Your task to perform on an android device: turn on the 12-hour format for clock Image 0: 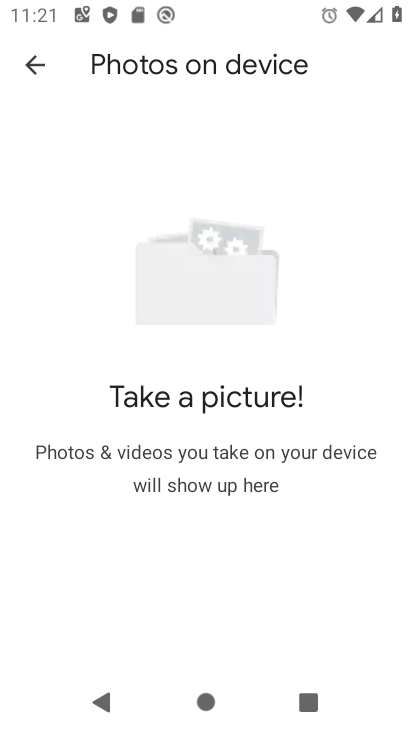
Step 0: press home button
Your task to perform on an android device: turn on the 12-hour format for clock Image 1: 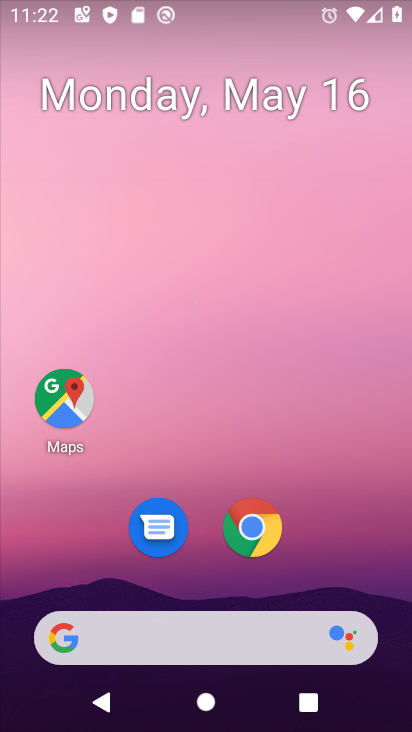
Step 1: drag from (382, 549) to (348, 14)
Your task to perform on an android device: turn on the 12-hour format for clock Image 2: 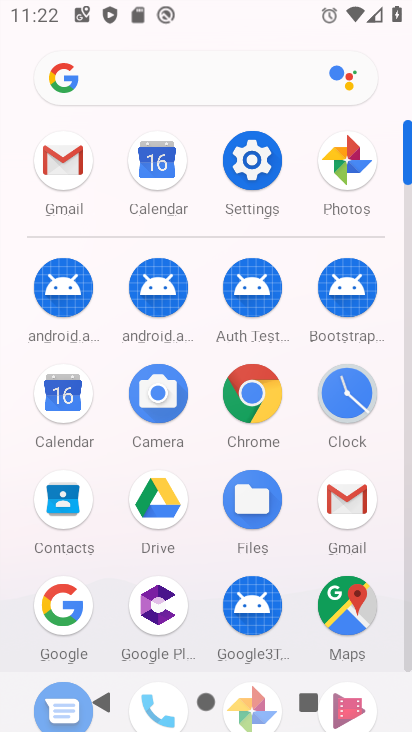
Step 2: click (351, 394)
Your task to perform on an android device: turn on the 12-hour format for clock Image 3: 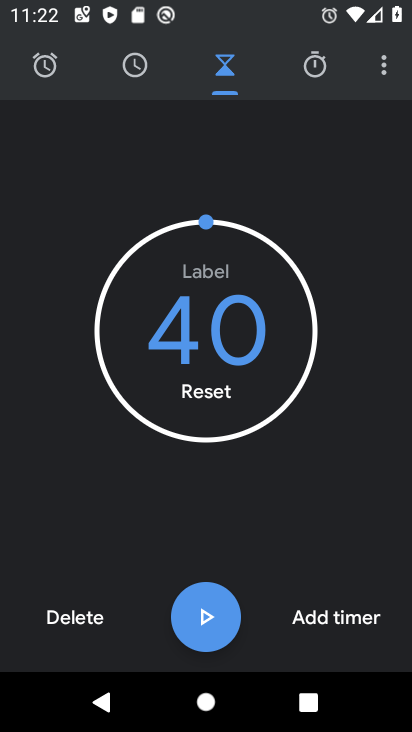
Step 3: click (394, 67)
Your task to perform on an android device: turn on the 12-hour format for clock Image 4: 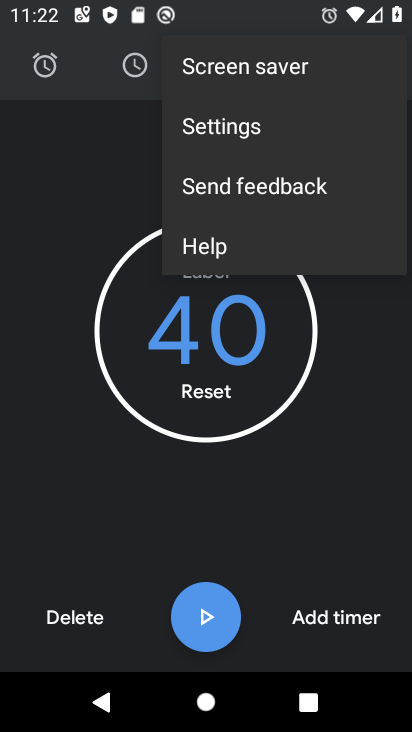
Step 4: click (232, 127)
Your task to perform on an android device: turn on the 12-hour format for clock Image 5: 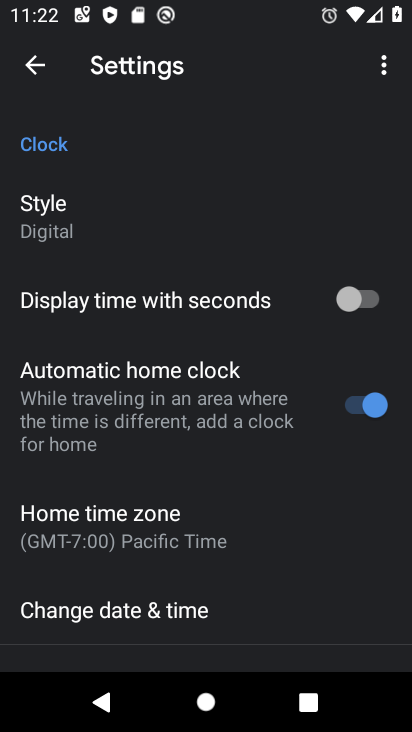
Step 5: click (152, 606)
Your task to perform on an android device: turn on the 12-hour format for clock Image 6: 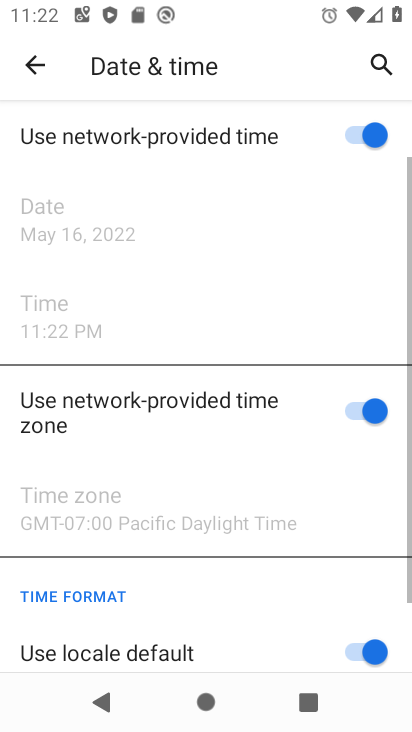
Step 6: task complete